Your task to perform on an android device: Open accessibility settings Image 0: 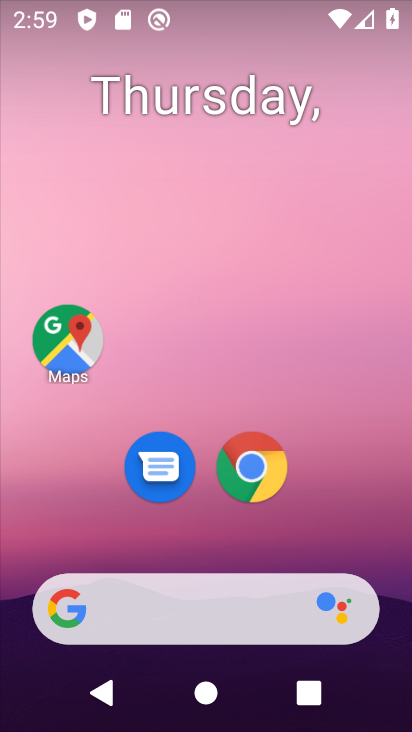
Step 0: drag from (200, 585) to (184, 30)
Your task to perform on an android device: Open accessibility settings Image 1: 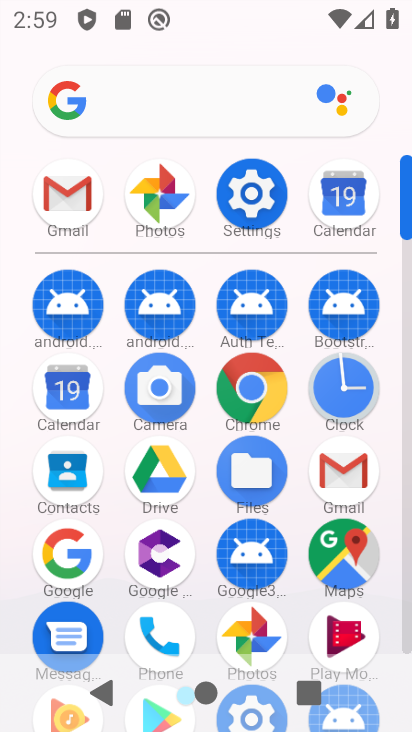
Step 1: click (247, 191)
Your task to perform on an android device: Open accessibility settings Image 2: 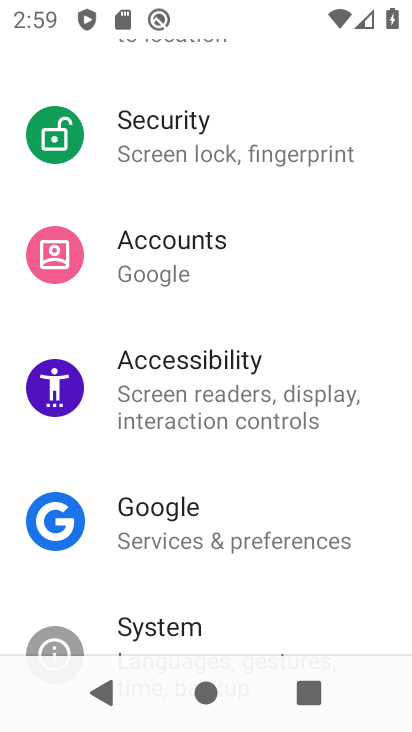
Step 2: click (197, 412)
Your task to perform on an android device: Open accessibility settings Image 3: 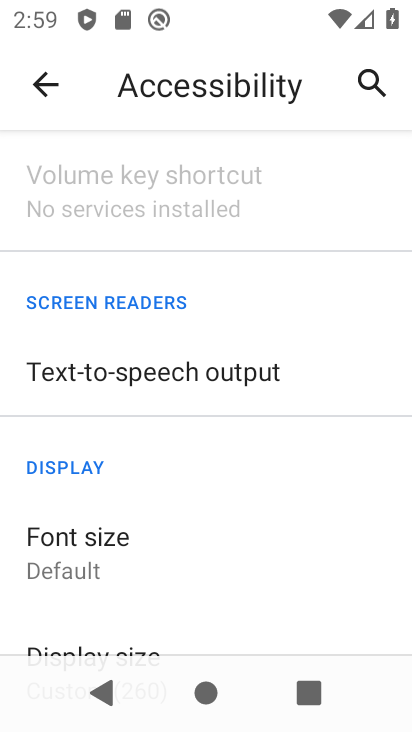
Step 3: task complete